Your task to perform on an android device: Open calendar and show me the fourth week of next month Image 0: 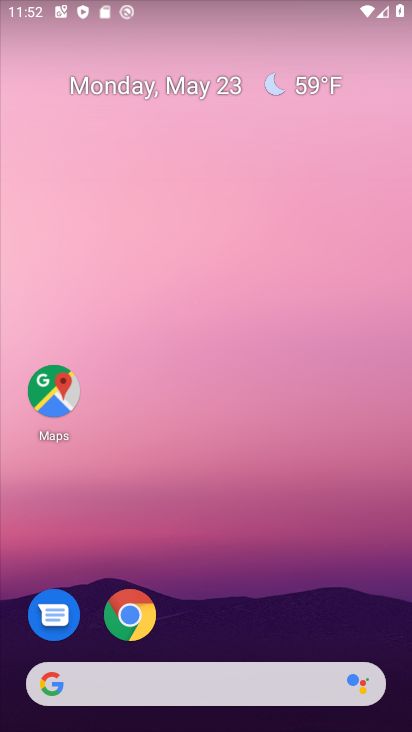
Step 0: drag from (262, 528) to (211, 86)
Your task to perform on an android device: Open calendar and show me the fourth week of next month Image 1: 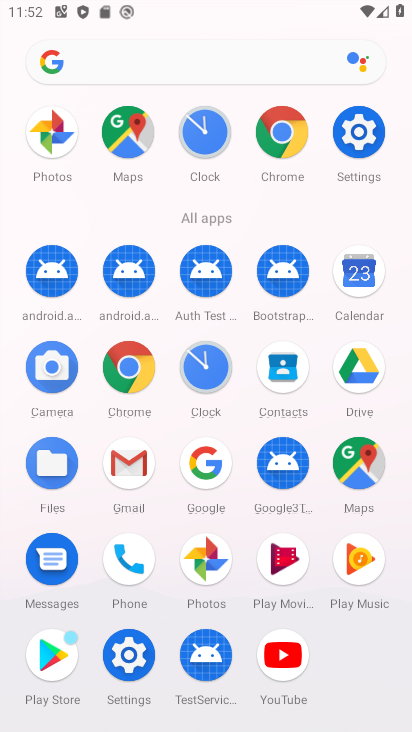
Step 1: drag from (9, 525) to (32, 193)
Your task to perform on an android device: Open calendar and show me the fourth week of next month Image 2: 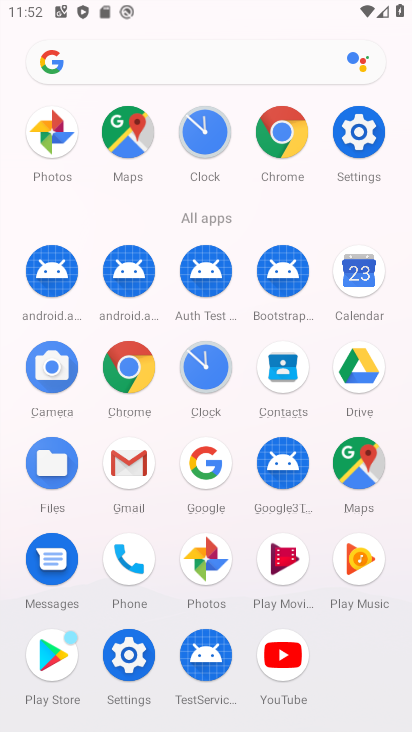
Step 2: click (363, 269)
Your task to perform on an android device: Open calendar and show me the fourth week of next month Image 3: 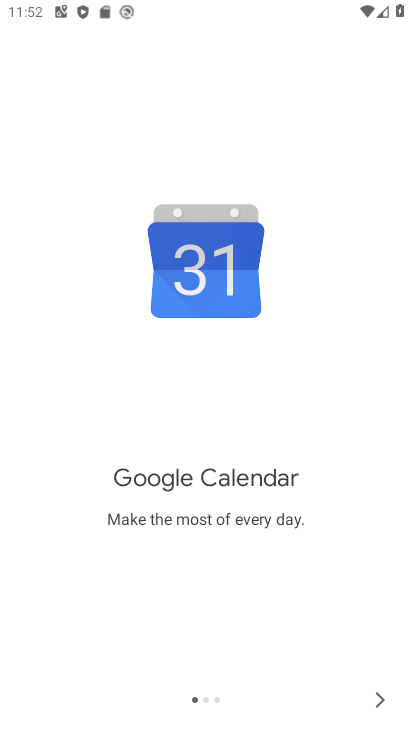
Step 3: click (381, 704)
Your task to perform on an android device: Open calendar and show me the fourth week of next month Image 4: 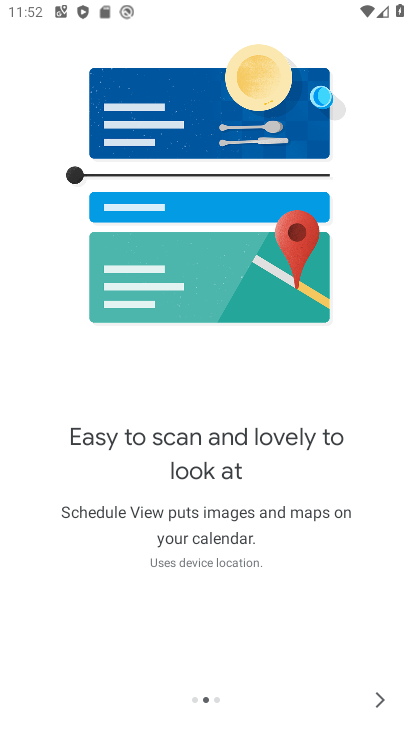
Step 4: click (380, 703)
Your task to perform on an android device: Open calendar and show me the fourth week of next month Image 5: 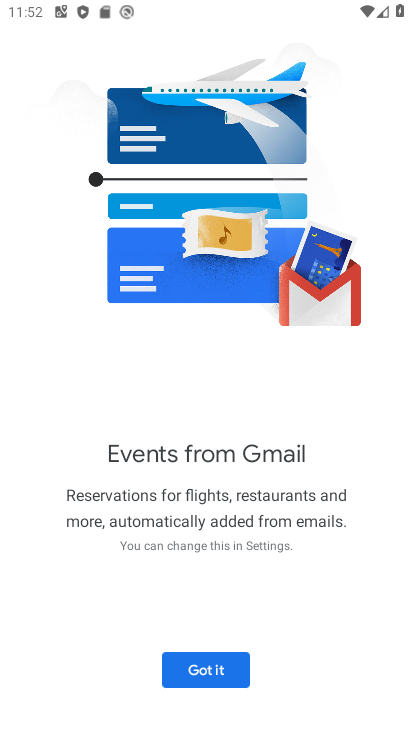
Step 5: click (380, 703)
Your task to perform on an android device: Open calendar and show me the fourth week of next month Image 6: 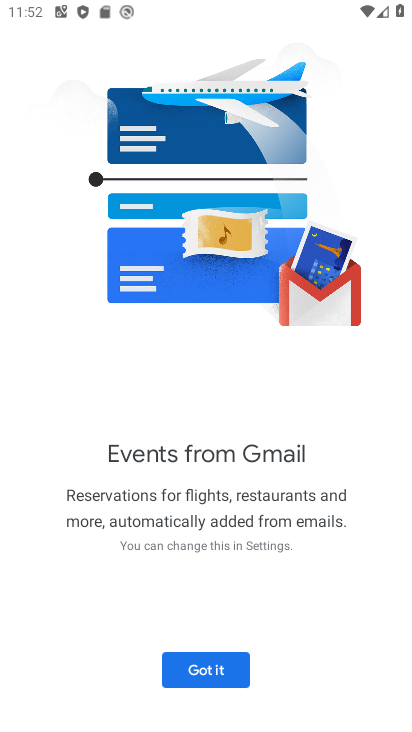
Step 6: click (226, 675)
Your task to perform on an android device: Open calendar and show me the fourth week of next month Image 7: 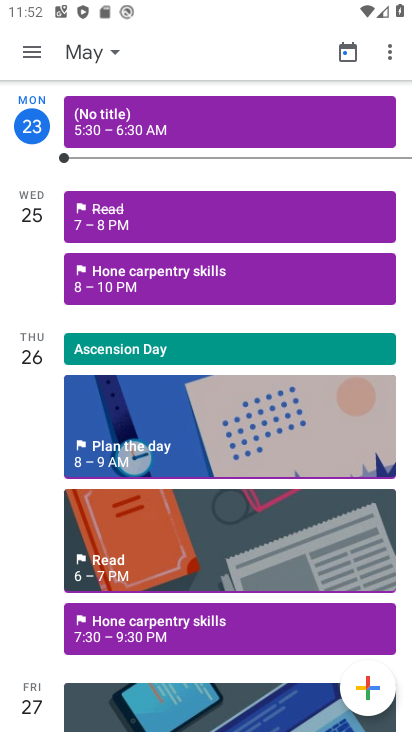
Step 7: click (104, 51)
Your task to perform on an android device: Open calendar and show me the fourth week of next month Image 8: 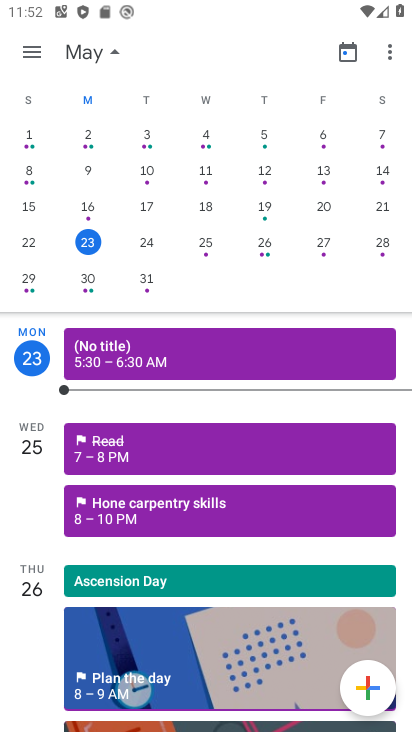
Step 8: drag from (308, 142) to (4, 156)
Your task to perform on an android device: Open calendar and show me the fourth week of next month Image 9: 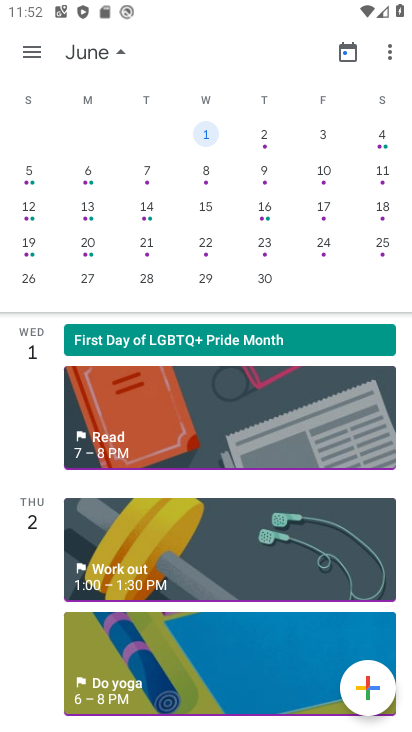
Step 9: click (33, 238)
Your task to perform on an android device: Open calendar and show me the fourth week of next month Image 10: 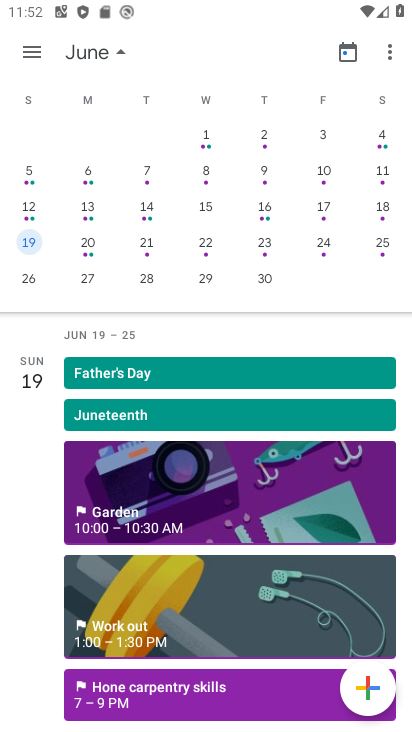
Step 10: click (27, 56)
Your task to perform on an android device: Open calendar and show me the fourth week of next month Image 11: 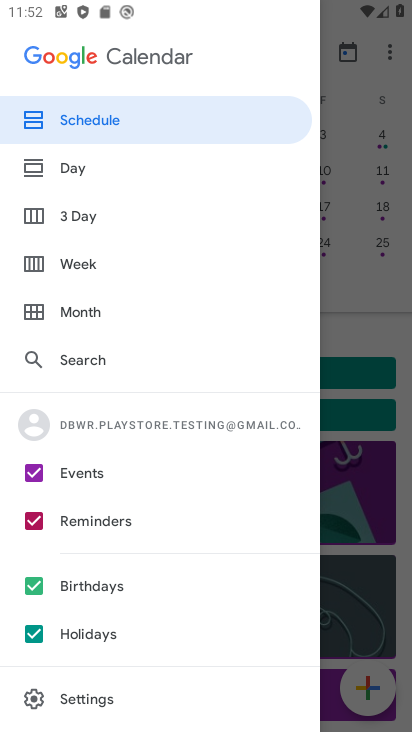
Step 11: click (97, 261)
Your task to perform on an android device: Open calendar and show me the fourth week of next month Image 12: 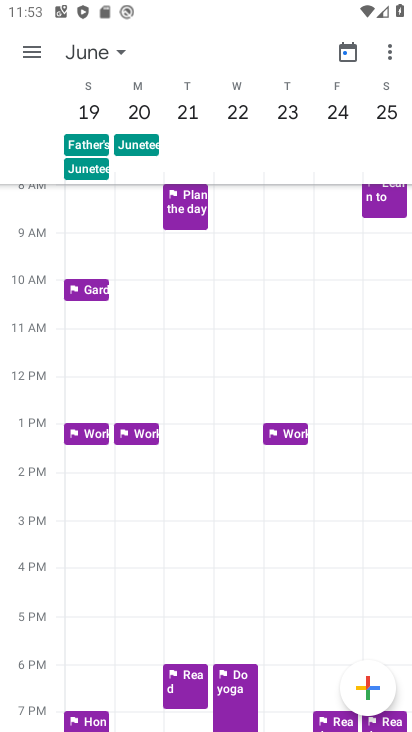
Step 12: task complete